Your task to perform on an android device: turn on airplane mode Image 0: 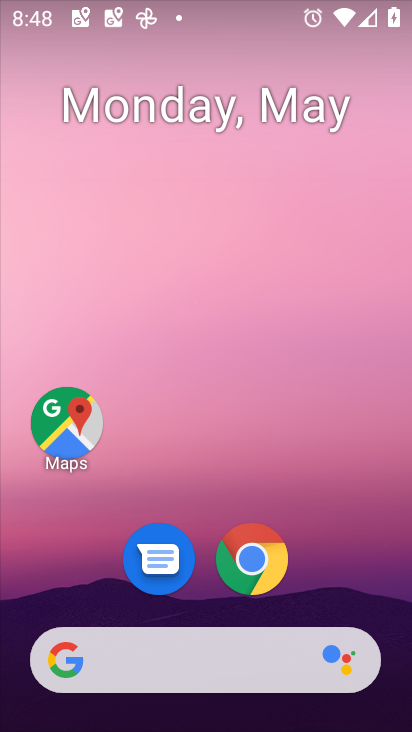
Step 0: drag from (246, 7) to (233, 360)
Your task to perform on an android device: turn on airplane mode Image 1: 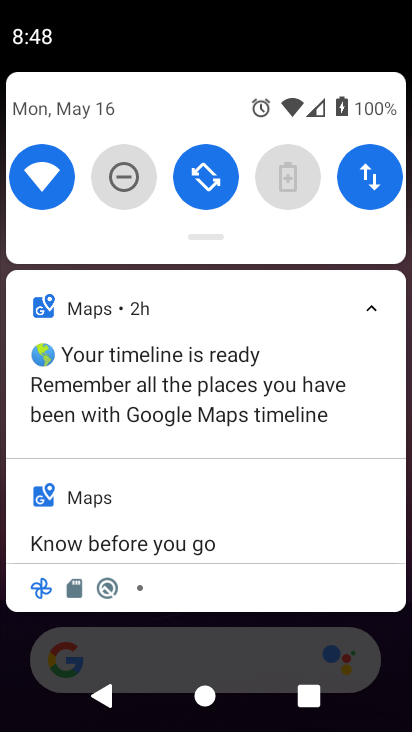
Step 1: drag from (221, 221) to (224, 561)
Your task to perform on an android device: turn on airplane mode Image 2: 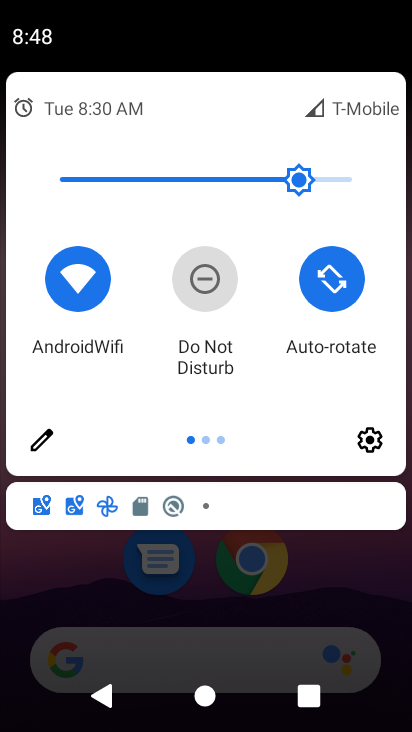
Step 2: drag from (346, 374) to (158, 352)
Your task to perform on an android device: turn on airplane mode Image 3: 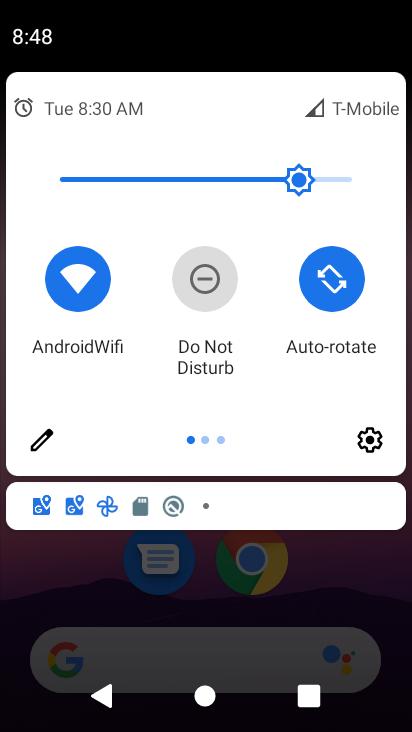
Step 3: drag from (350, 289) to (2, 303)
Your task to perform on an android device: turn on airplane mode Image 4: 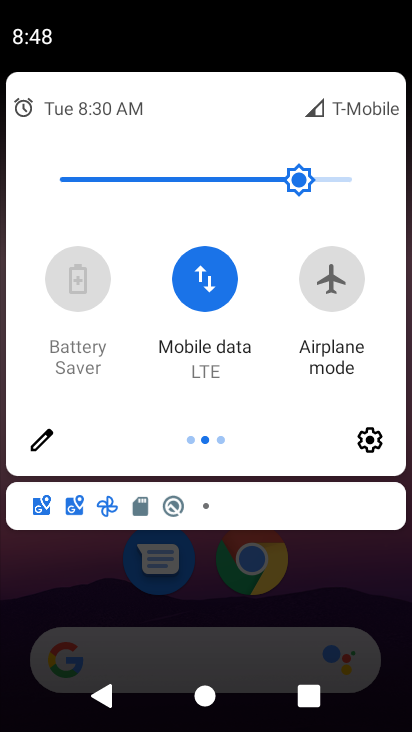
Step 4: click (329, 285)
Your task to perform on an android device: turn on airplane mode Image 5: 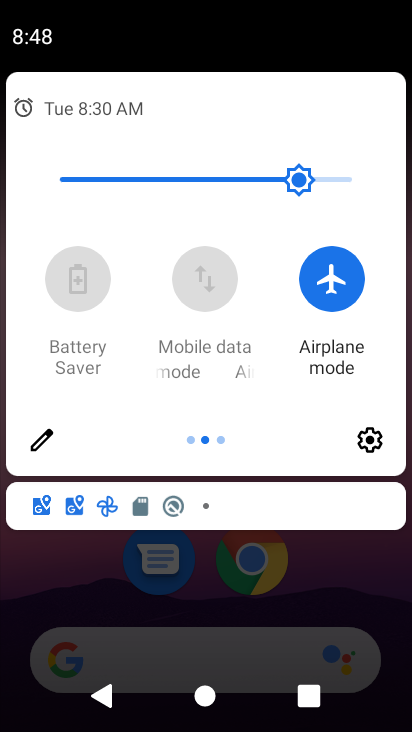
Step 5: task complete